Your task to perform on an android device: toggle priority inbox in the gmail app Image 0: 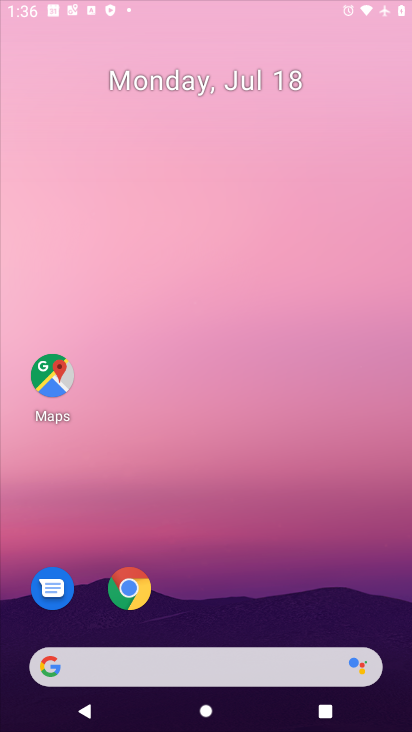
Step 0: press home button
Your task to perform on an android device: toggle priority inbox in the gmail app Image 1: 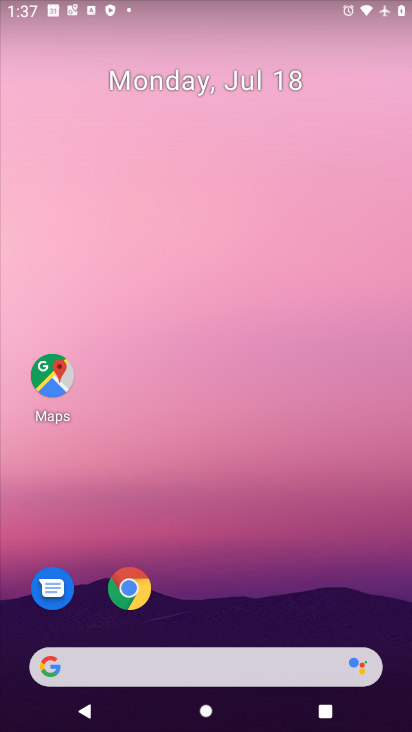
Step 1: drag from (267, 651) to (360, 0)
Your task to perform on an android device: toggle priority inbox in the gmail app Image 2: 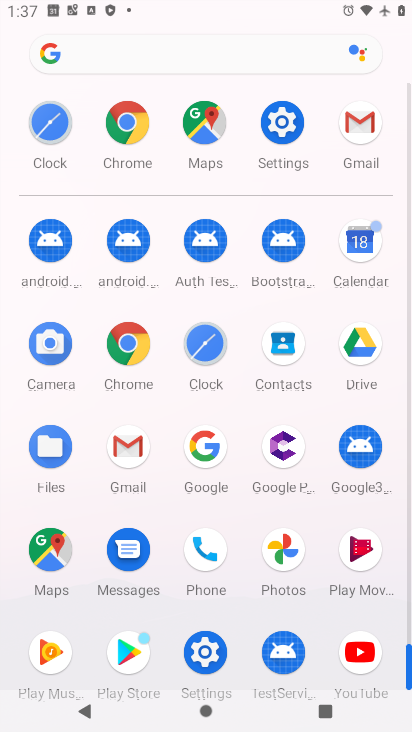
Step 2: click (131, 457)
Your task to perform on an android device: toggle priority inbox in the gmail app Image 3: 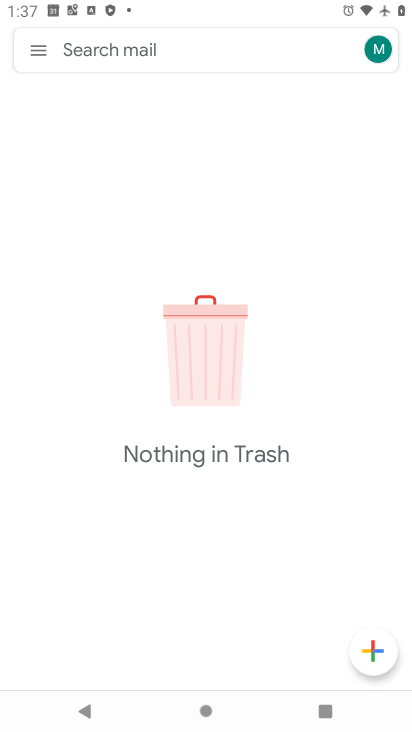
Step 3: click (41, 52)
Your task to perform on an android device: toggle priority inbox in the gmail app Image 4: 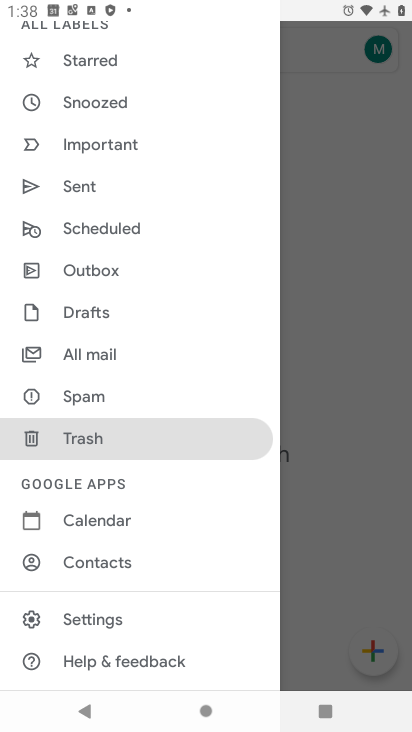
Step 4: click (93, 621)
Your task to perform on an android device: toggle priority inbox in the gmail app Image 5: 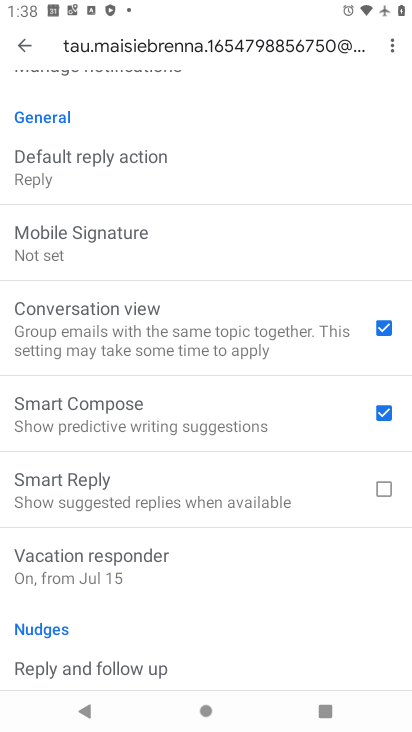
Step 5: drag from (112, 234) to (113, 724)
Your task to perform on an android device: toggle priority inbox in the gmail app Image 6: 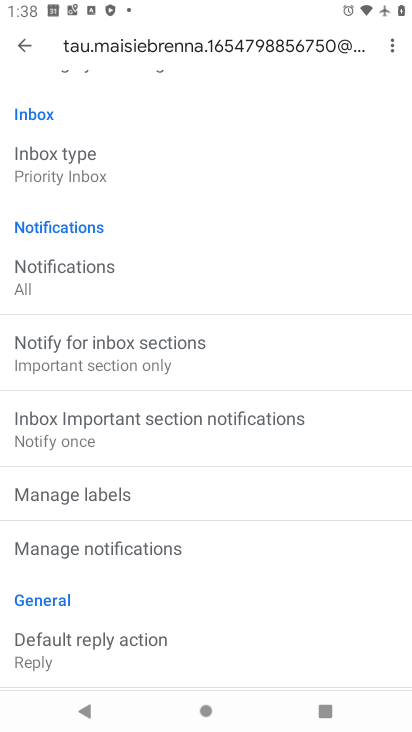
Step 6: click (76, 189)
Your task to perform on an android device: toggle priority inbox in the gmail app Image 7: 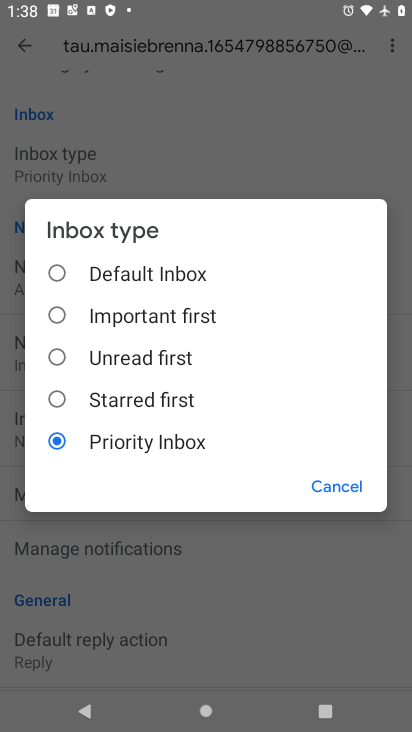
Step 7: click (121, 273)
Your task to perform on an android device: toggle priority inbox in the gmail app Image 8: 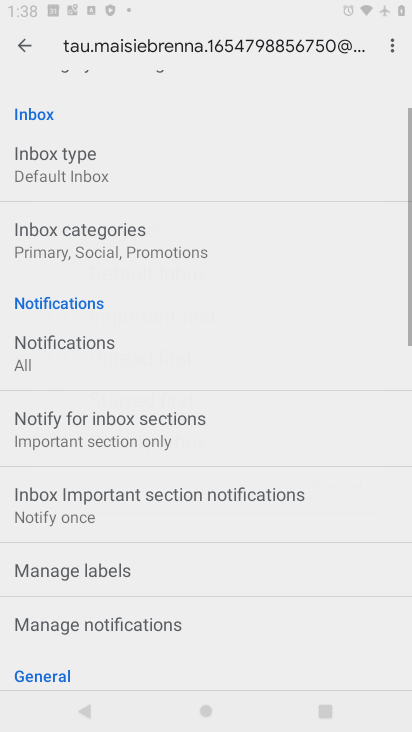
Step 8: task complete